Your task to perform on an android device: turn vacation reply on in the gmail app Image 0: 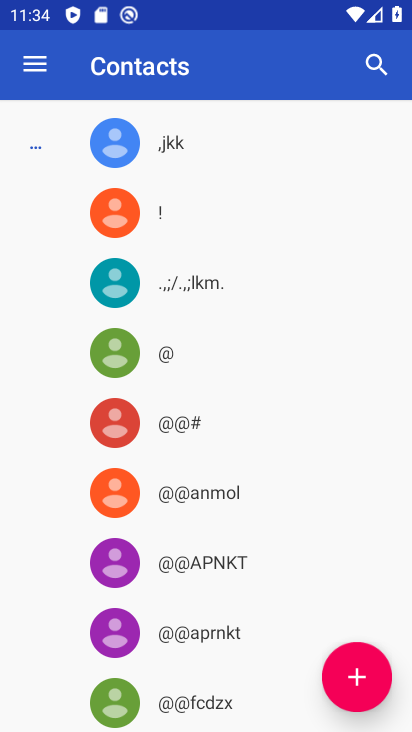
Step 0: press home button
Your task to perform on an android device: turn vacation reply on in the gmail app Image 1: 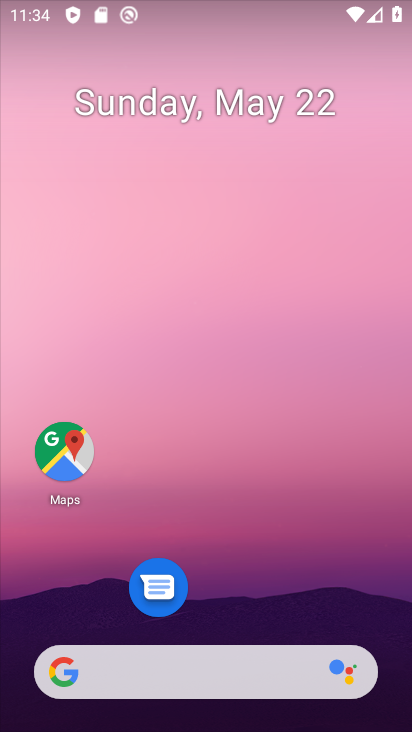
Step 1: drag from (207, 635) to (234, 23)
Your task to perform on an android device: turn vacation reply on in the gmail app Image 2: 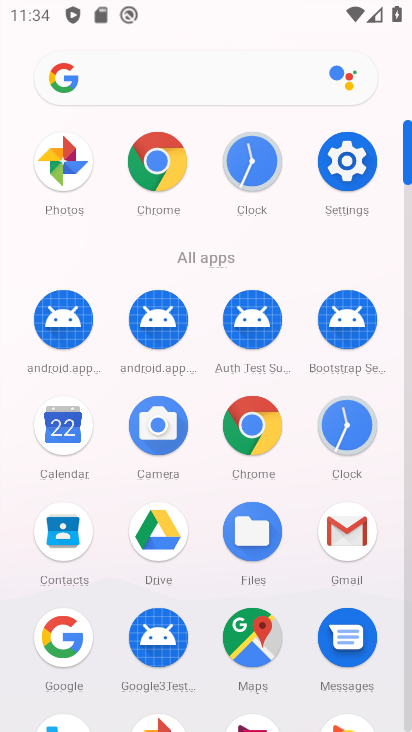
Step 2: click (330, 517)
Your task to perform on an android device: turn vacation reply on in the gmail app Image 3: 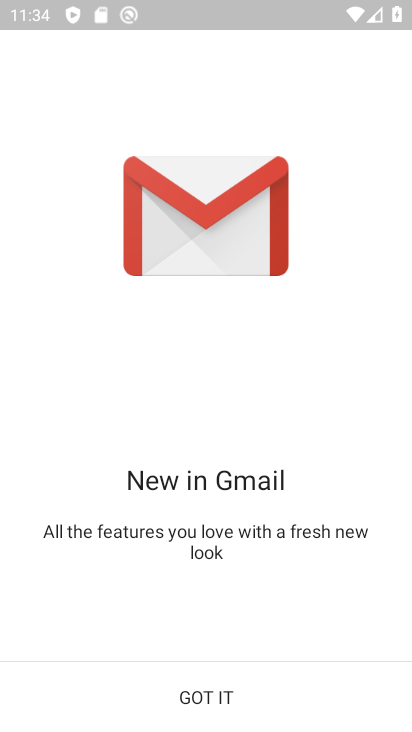
Step 3: click (204, 706)
Your task to perform on an android device: turn vacation reply on in the gmail app Image 4: 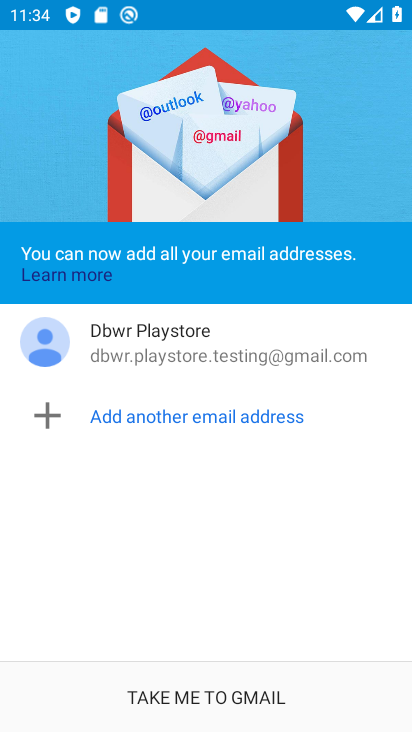
Step 4: click (204, 706)
Your task to perform on an android device: turn vacation reply on in the gmail app Image 5: 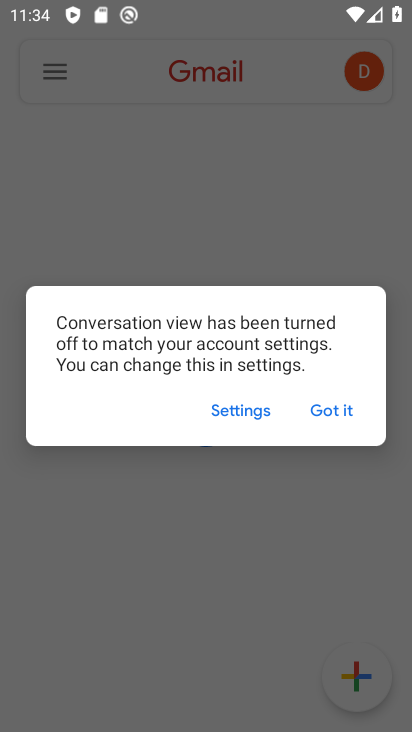
Step 5: click (204, 706)
Your task to perform on an android device: turn vacation reply on in the gmail app Image 6: 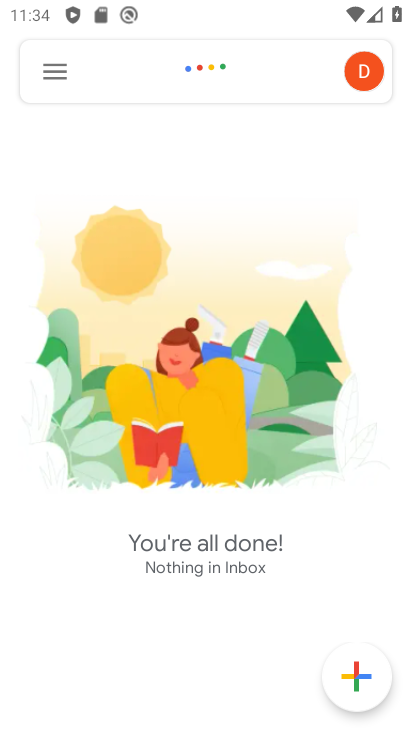
Step 6: click (61, 77)
Your task to perform on an android device: turn vacation reply on in the gmail app Image 7: 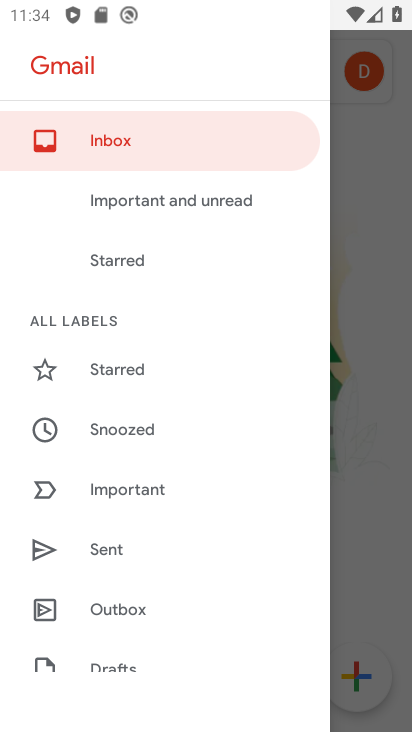
Step 7: drag from (141, 468) to (107, 0)
Your task to perform on an android device: turn vacation reply on in the gmail app Image 8: 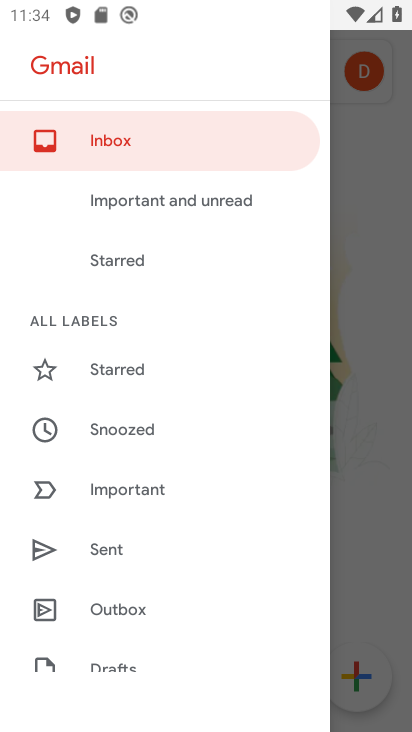
Step 8: drag from (131, 639) to (110, 73)
Your task to perform on an android device: turn vacation reply on in the gmail app Image 9: 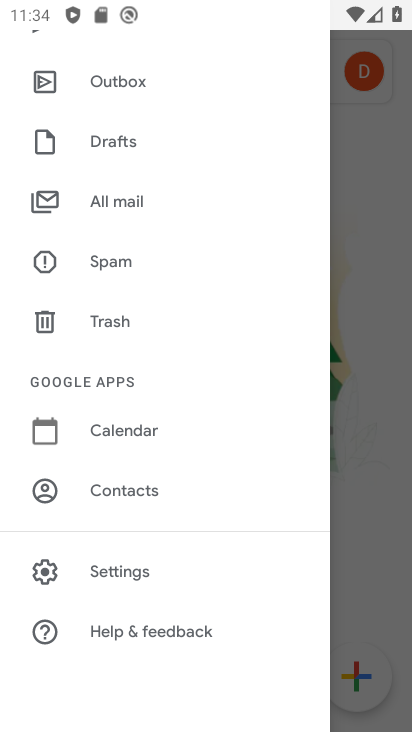
Step 9: click (119, 583)
Your task to perform on an android device: turn vacation reply on in the gmail app Image 10: 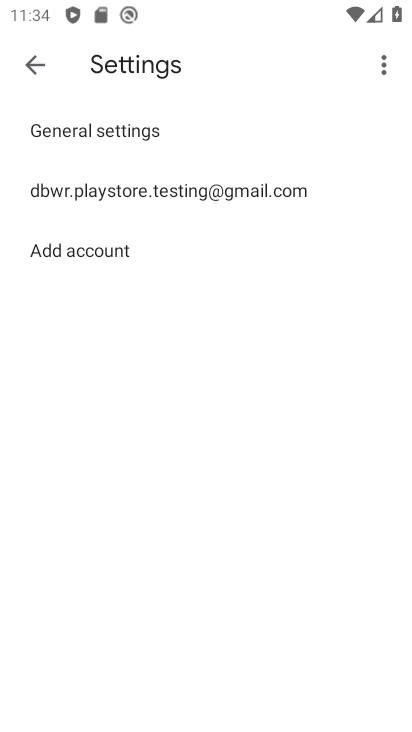
Step 10: click (105, 177)
Your task to perform on an android device: turn vacation reply on in the gmail app Image 11: 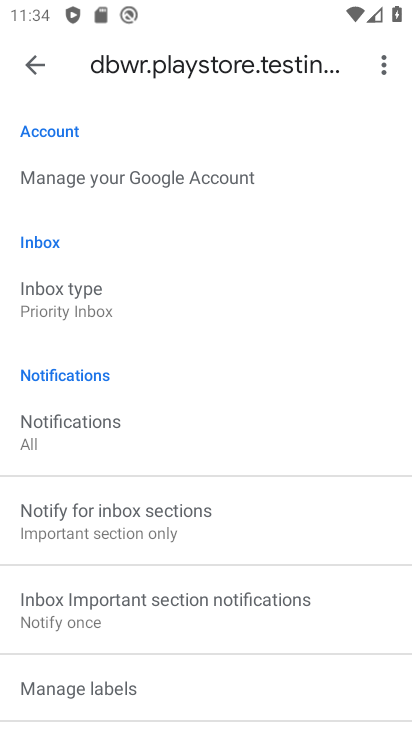
Step 11: drag from (139, 619) to (154, 239)
Your task to perform on an android device: turn vacation reply on in the gmail app Image 12: 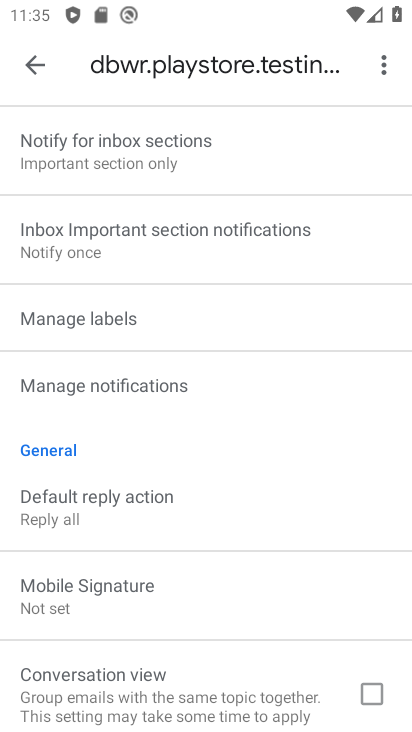
Step 12: drag from (143, 494) to (58, 80)
Your task to perform on an android device: turn vacation reply on in the gmail app Image 13: 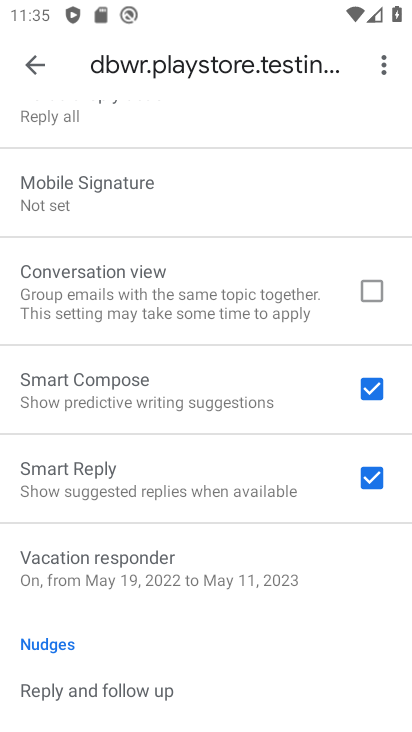
Step 13: click (121, 547)
Your task to perform on an android device: turn vacation reply on in the gmail app Image 14: 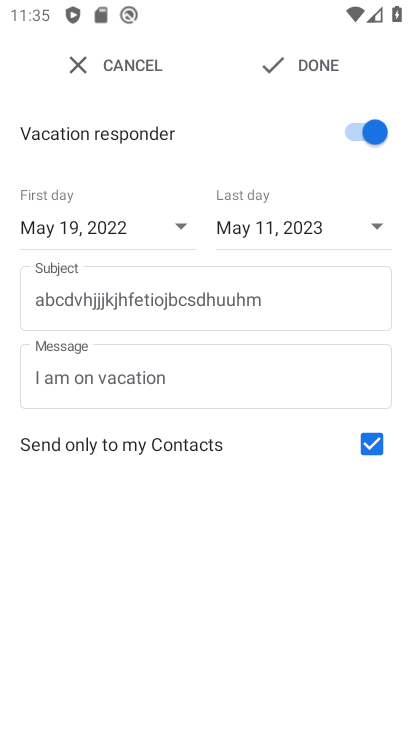
Step 14: click (317, 49)
Your task to perform on an android device: turn vacation reply on in the gmail app Image 15: 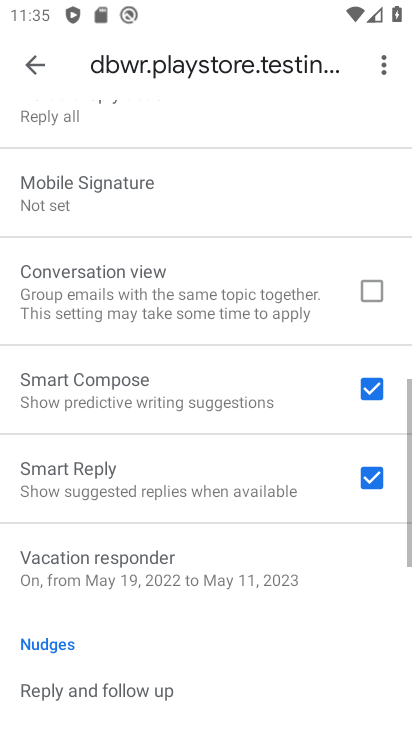
Step 15: task complete